Your task to perform on an android device: Go to network settings Image 0: 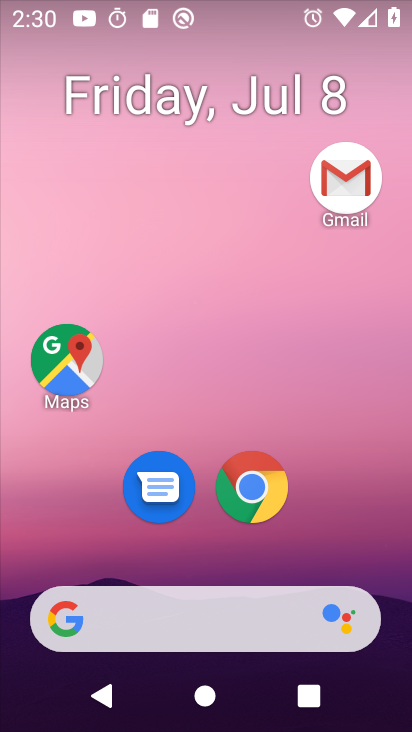
Step 0: drag from (330, 511) to (345, 146)
Your task to perform on an android device: Go to network settings Image 1: 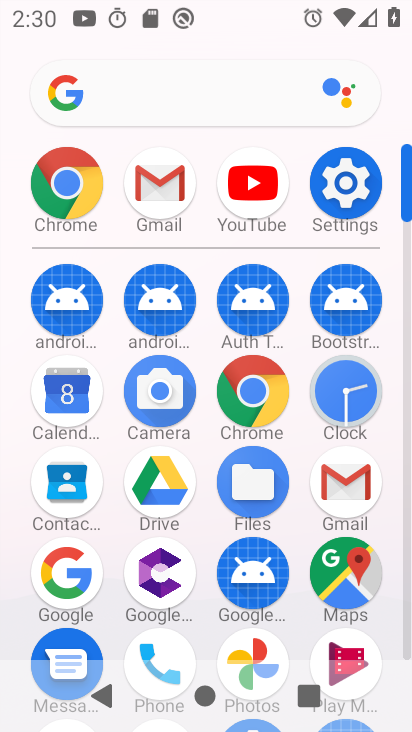
Step 1: click (344, 181)
Your task to perform on an android device: Go to network settings Image 2: 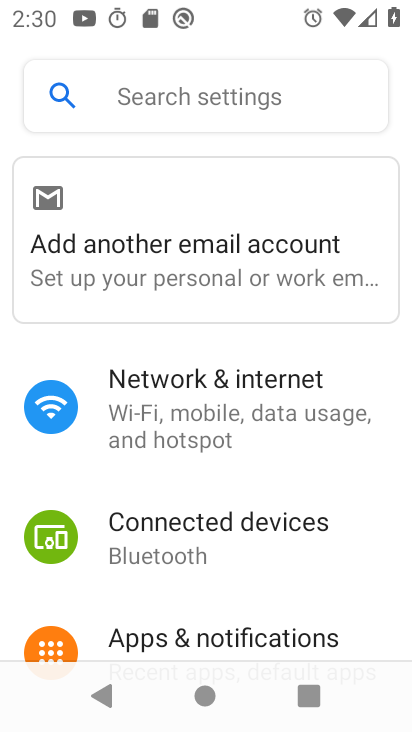
Step 2: drag from (359, 546) to (363, 278)
Your task to perform on an android device: Go to network settings Image 3: 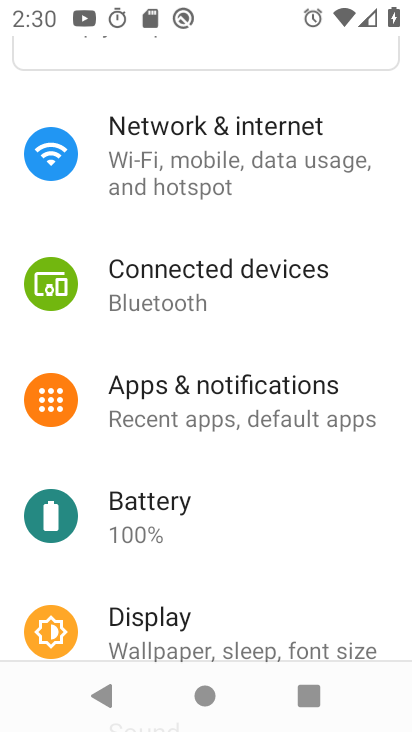
Step 3: click (233, 171)
Your task to perform on an android device: Go to network settings Image 4: 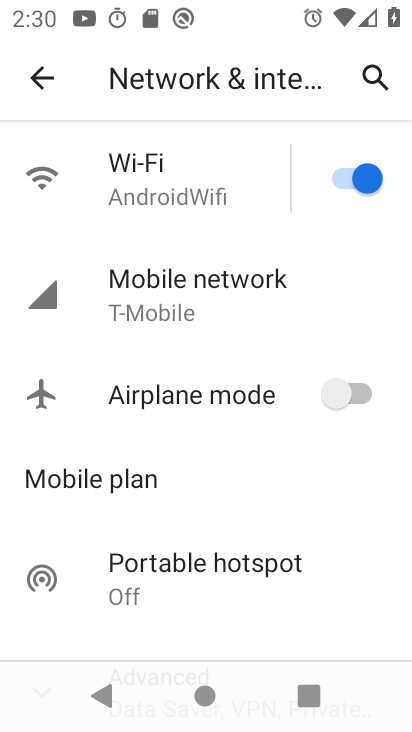
Step 4: task complete